Your task to perform on an android device: Open internet settings Image 0: 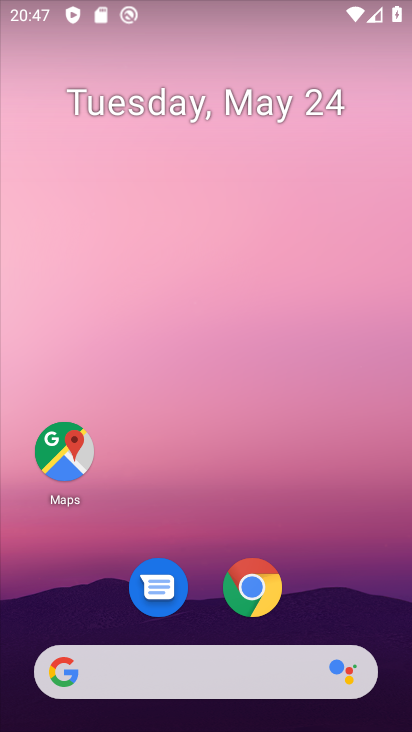
Step 0: drag from (350, 583) to (275, 66)
Your task to perform on an android device: Open internet settings Image 1: 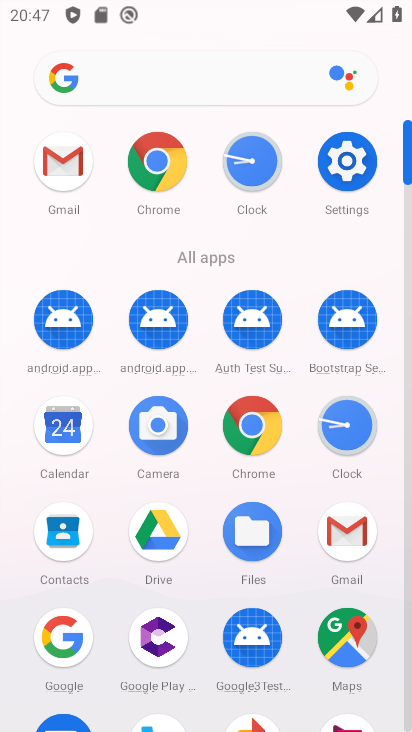
Step 1: drag from (10, 620) to (10, 318)
Your task to perform on an android device: Open internet settings Image 2: 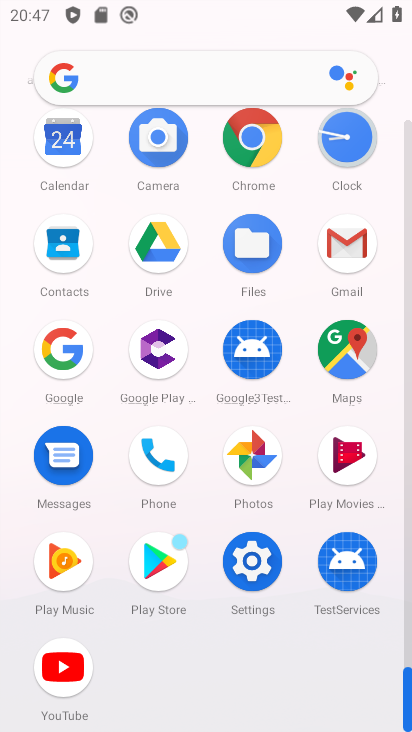
Step 2: click (249, 557)
Your task to perform on an android device: Open internet settings Image 3: 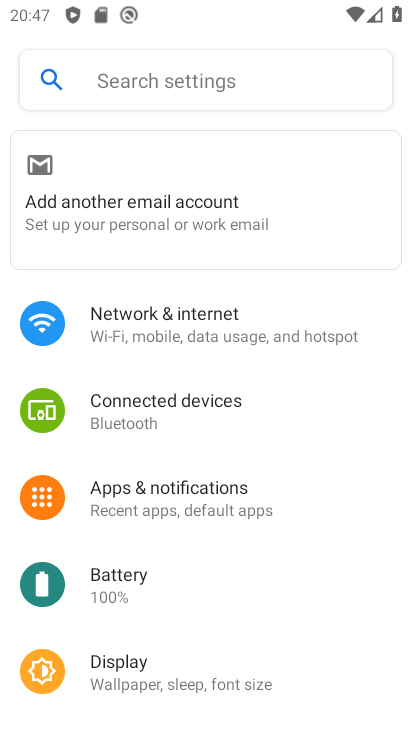
Step 3: click (220, 311)
Your task to perform on an android device: Open internet settings Image 4: 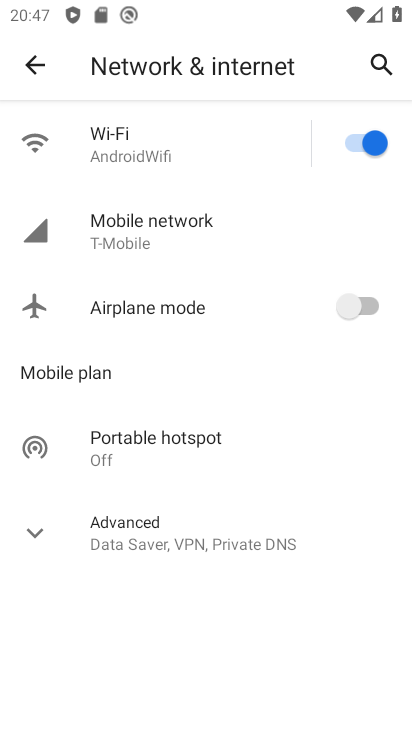
Step 4: click (37, 526)
Your task to perform on an android device: Open internet settings Image 5: 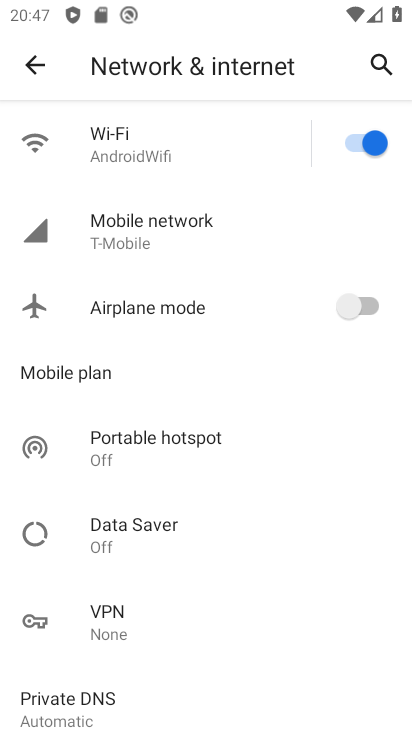
Step 5: task complete